Your task to perform on an android device: turn on priority inbox in the gmail app Image 0: 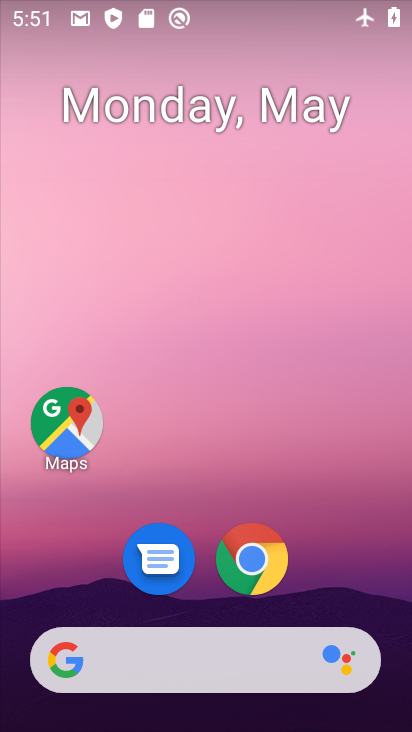
Step 0: drag from (330, 466) to (245, 58)
Your task to perform on an android device: turn on priority inbox in the gmail app Image 1: 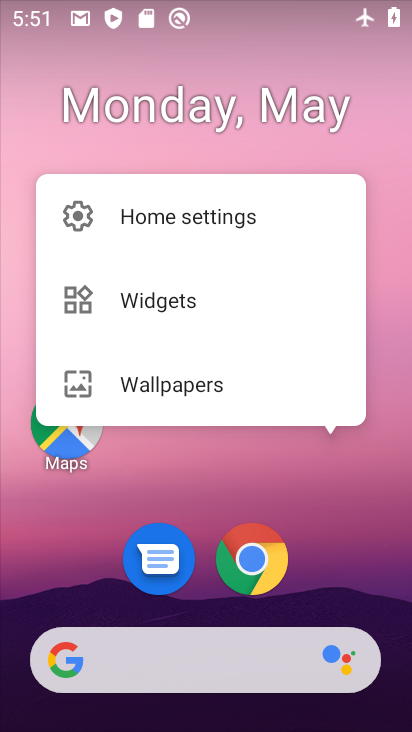
Step 1: click (297, 450)
Your task to perform on an android device: turn on priority inbox in the gmail app Image 2: 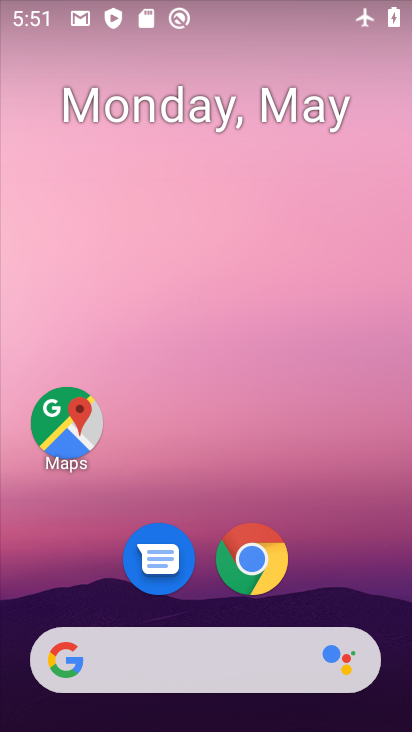
Step 2: drag from (263, 458) to (213, 104)
Your task to perform on an android device: turn on priority inbox in the gmail app Image 3: 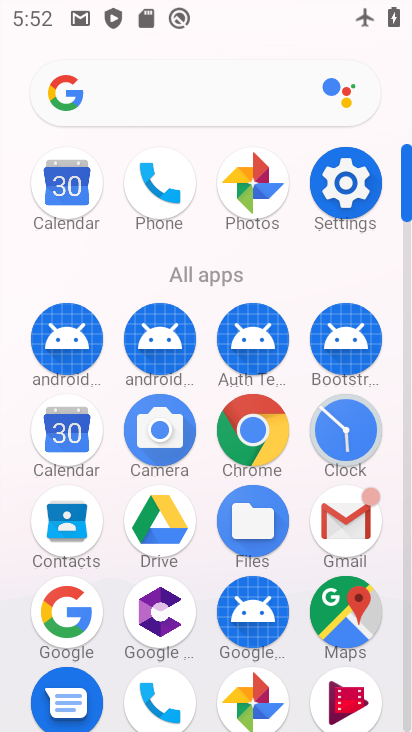
Step 3: click (329, 534)
Your task to perform on an android device: turn on priority inbox in the gmail app Image 4: 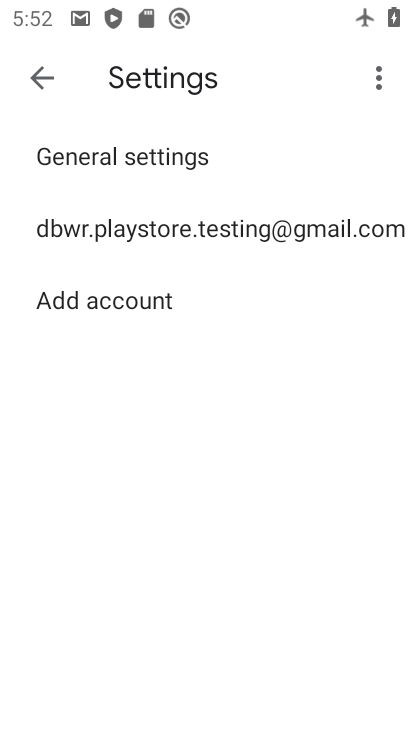
Step 4: click (123, 232)
Your task to perform on an android device: turn on priority inbox in the gmail app Image 5: 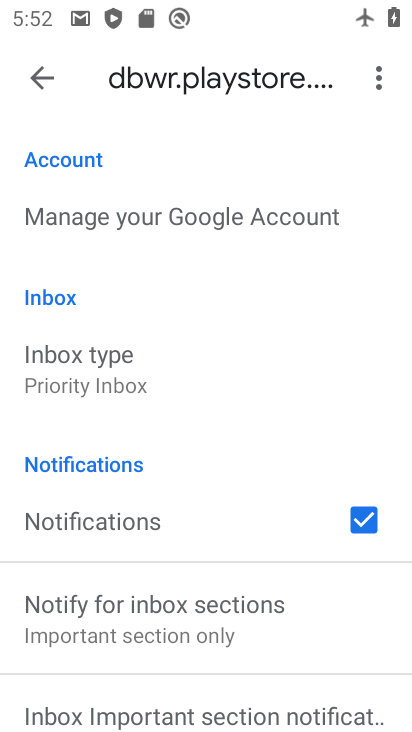
Step 5: click (77, 375)
Your task to perform on an android device: turn on priority inbox in the gmail app Image 6: 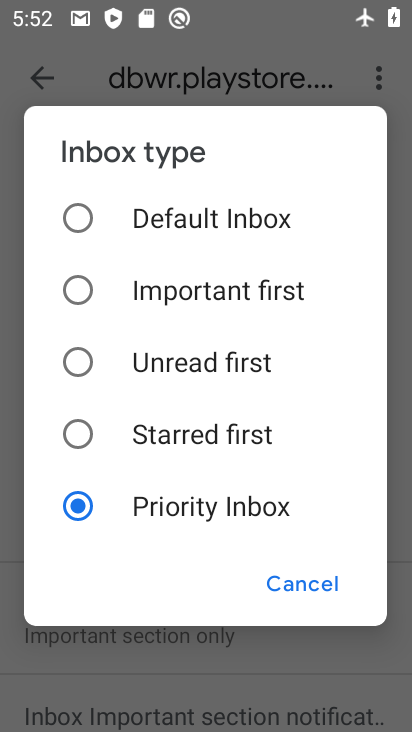
Step 6: task complete